Your task to perform on an android device: Go to CNN.com Image 0: 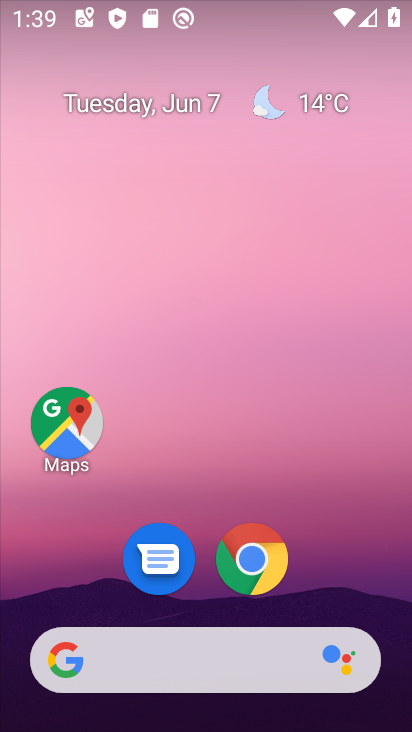
Step 0: drag from (314, 441) to (208, 41)
Your task to perform on an android device: Go to CNN.com Image 1: 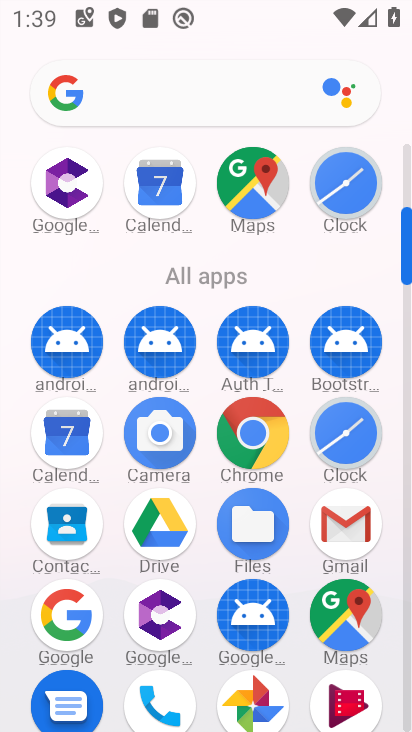
Step 1: drag from (22, 612) to (14, 259)
Your task to perform on an android device: Go to CNN.com Image 2: 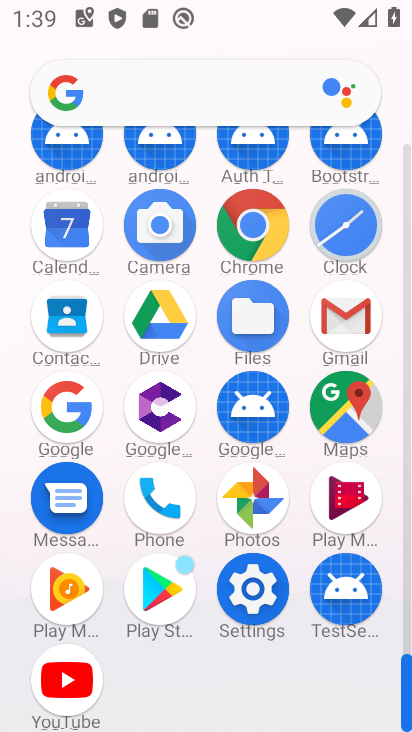
Step 2: click (245, 222)
Your task to perform on an android device: Go to CNN.com Image 3: 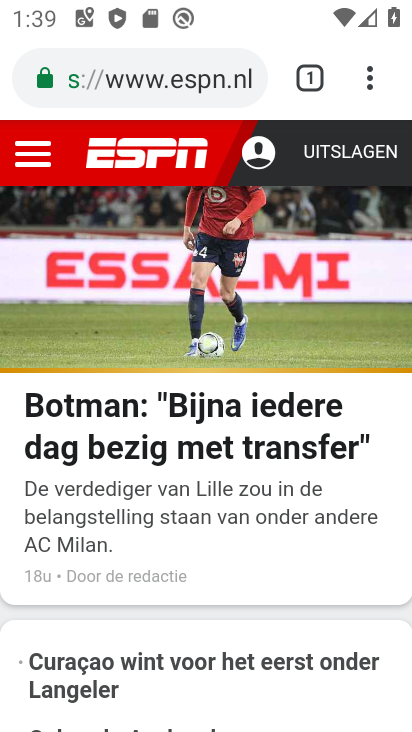
Step 3: click (219, 74)
Your task to perform on an android device: Go to CNN.com Image 4: 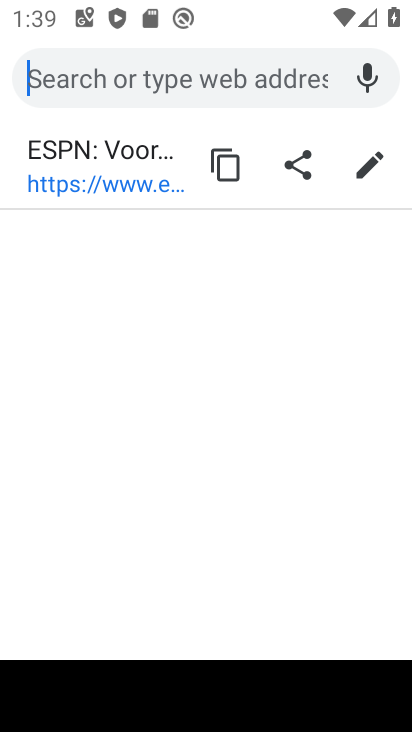
Step 4: type "CNN.com"
Your task to perform on an android device: Go to CNN.com Image 5: 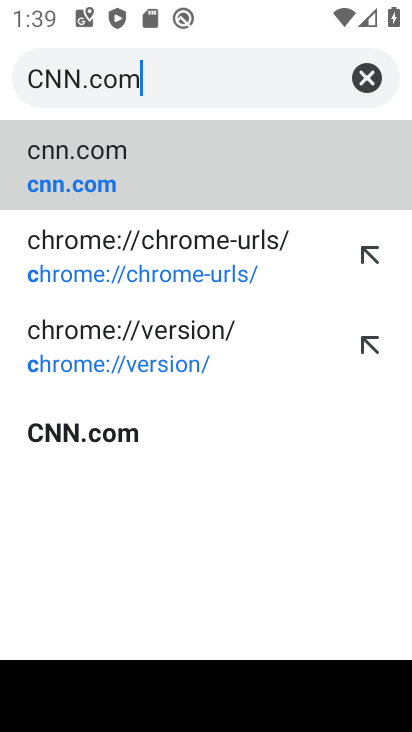
Step 5: type ""
Your task to perform on an android device: Go to CNN.com Image 6: 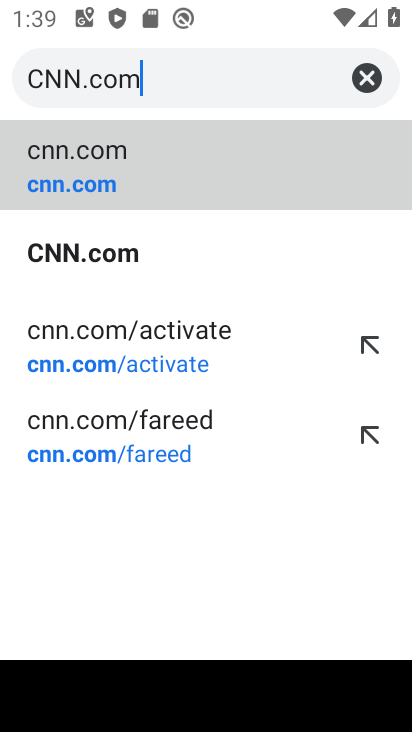
Step 6: click (116, 170)
Your task to perform on an android device: Go to CNN.com Image 7: 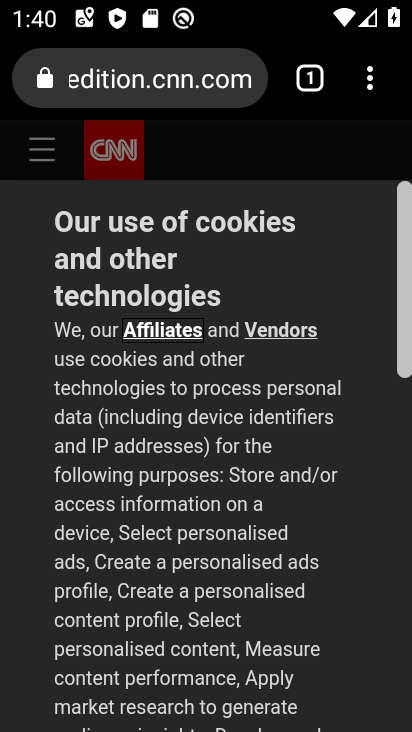
Step 7: task complete